Your task to perform on an android device: set the timer Image 0: 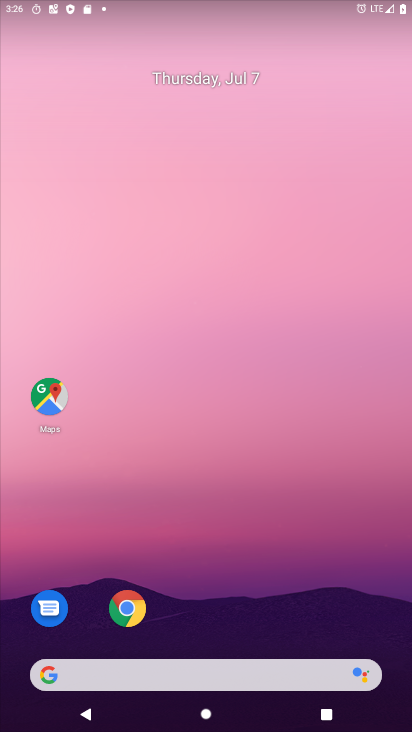
Step 0: drag from (256, 728) to (256, 35)
Your task to perform on an android device: set the timer Image 1: 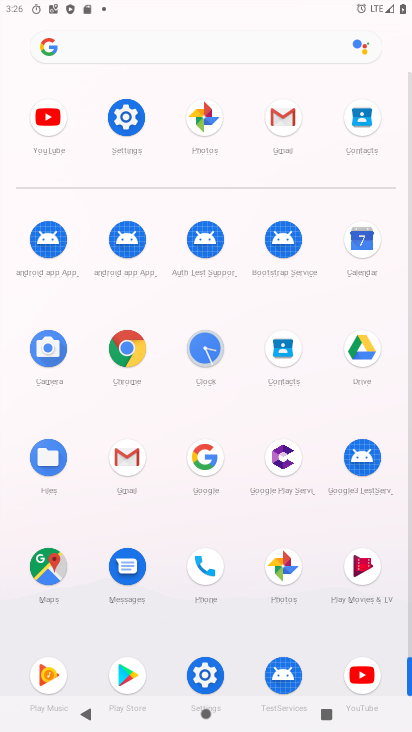
Step 1: click (211, 353)
Your task to perform on an android device: set the timer Image 2: 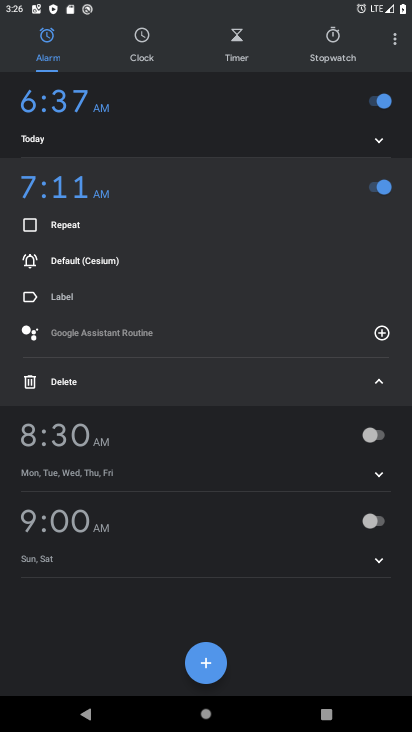
Step 2: click (241, 42)
Your task to perform on an android device: set the timer Image 3: 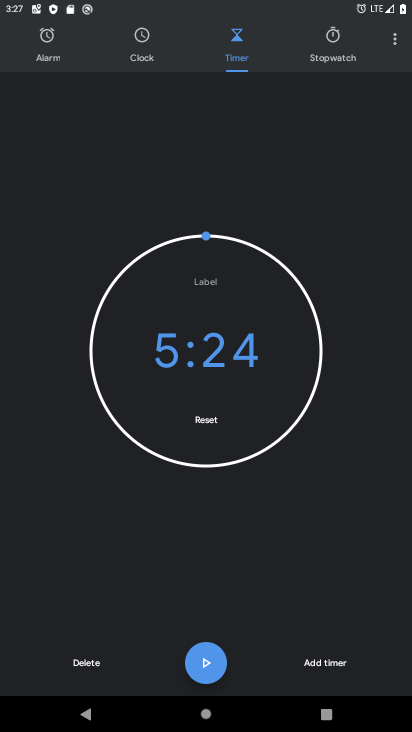
Step 3: click (317, 665)
Your task to perform on an android device: set the timer Image 4: 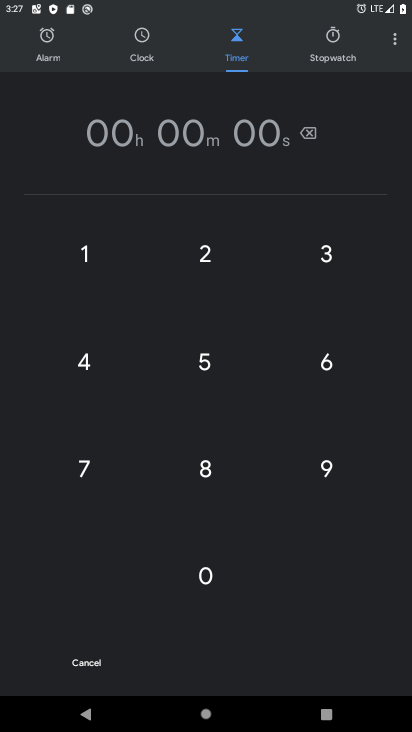
Step 4: click (209, 252)
Your task to perform on an android device: set the timer Image 5: 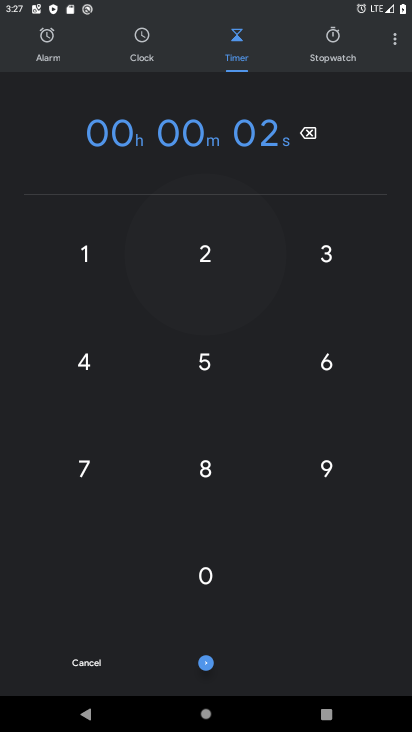
Step 5: click (205, 362)
Your task to perform on an android device: set the timer Image 6: 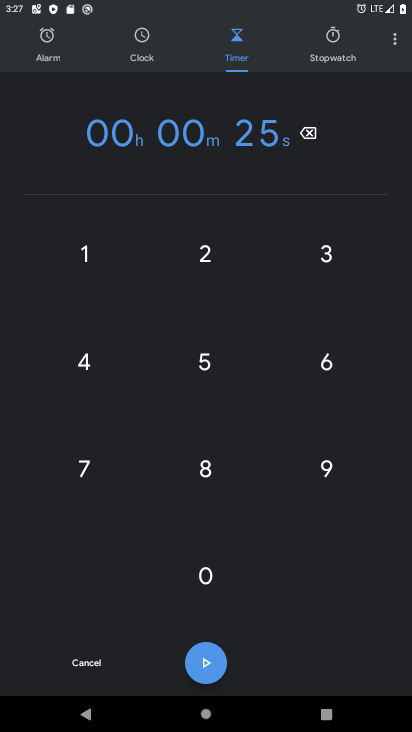
Step 6: click (84, 469)
Your task to perform on an android device: set the timer Image 7: 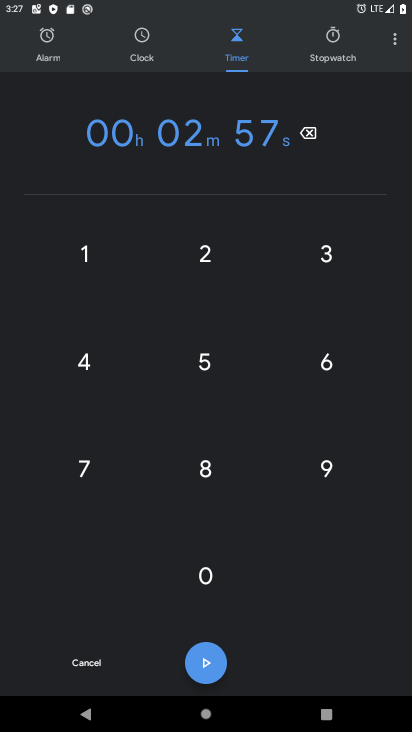
Step 7: click (202, 660)
Your task to perform on an android device: set the timer Image 8: 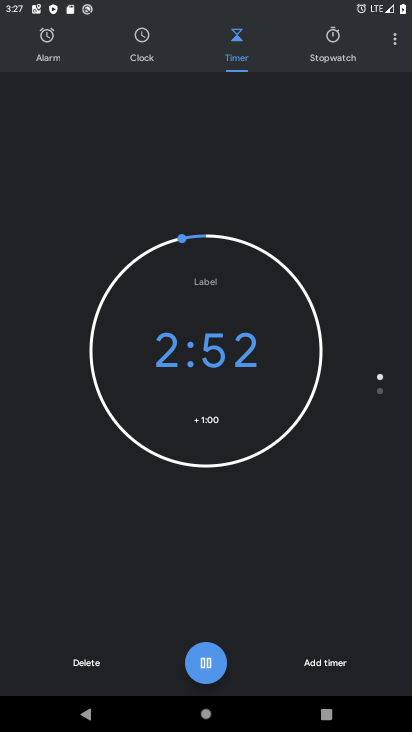
Step 8: task complete